Your task to perform on an android device: Check the latest toasters on Target. Image 0: 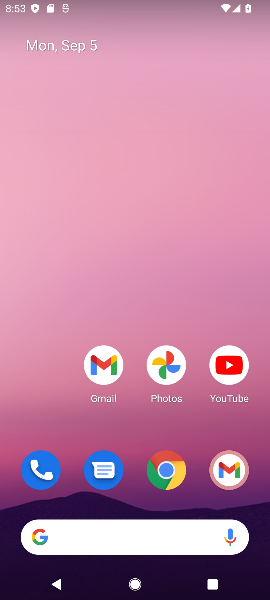
Step 0: click (135, 541)
Your task to perform on an android device: Check the latest toasters on Target. Image 1: 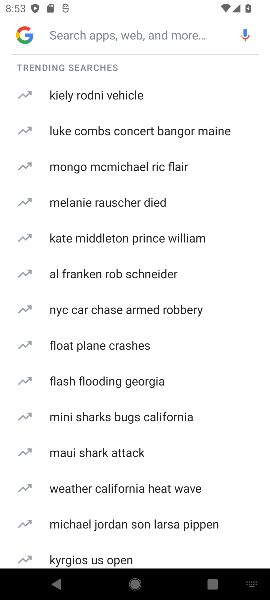
Step 1: type "target"
Your task to perform on an android device: Check the latest toasters on Target. Image 2: 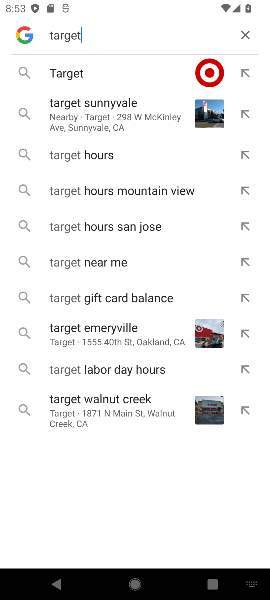
Step 2: click (75, 70)
Your task to perform on an android device: Check the latest toasters on Target. Image 3: 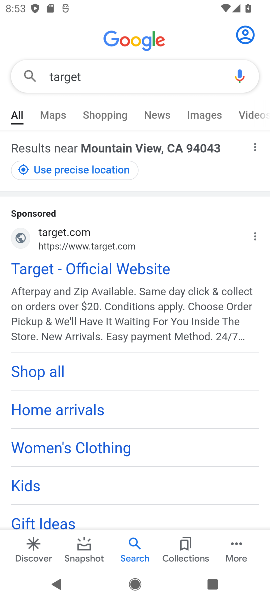
Step 3: click (53, 272)
Your task to perform on an android device: Check the latest toasters on Target. Image 4: 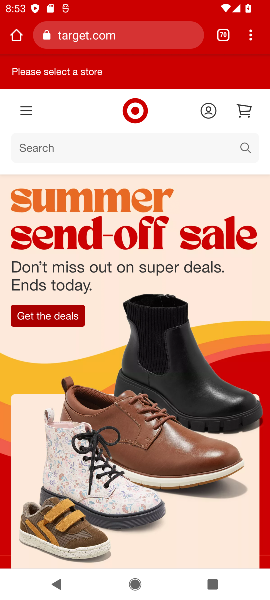
Step 4: click (83, 146)
Your task to perform on an android device: Check the latest toasters on Target. Image 5: 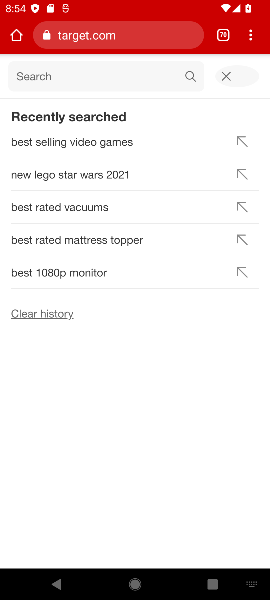
Step 5: type "latest toasters"
Your task to perform on an android device: Check the latest toasters on Target. Image 6: 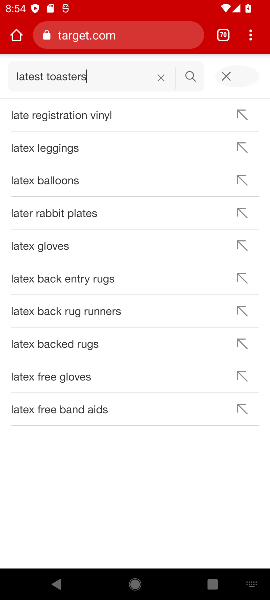
Step 6: click (192, 76)
Your task to perform on an android device: Check the latest toasters on Target. Image 7: 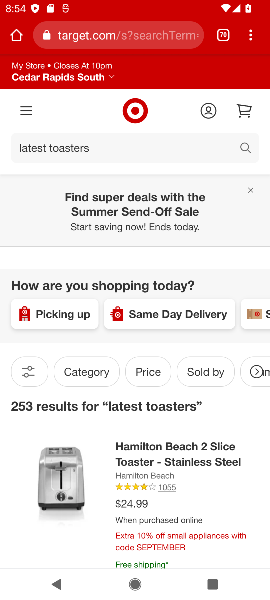
Step 7: task complete